Your task to perform on an android device: open chrome and create a bookmark for the current page Image 0: 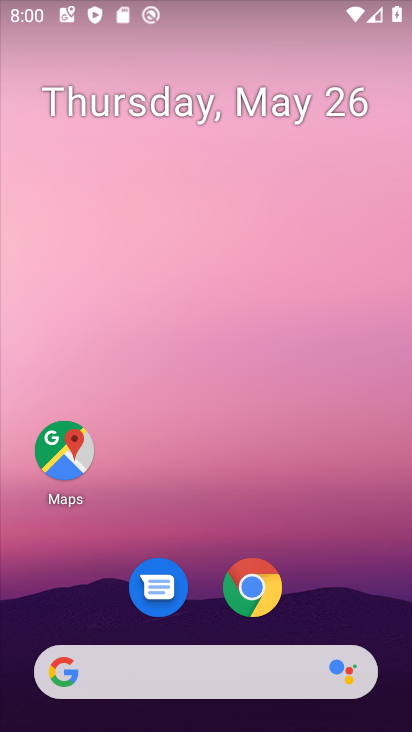
Step 0: click (242, 594)
Your task to perform on an android device: open chrome and create a bookmark for the current page Image 1: 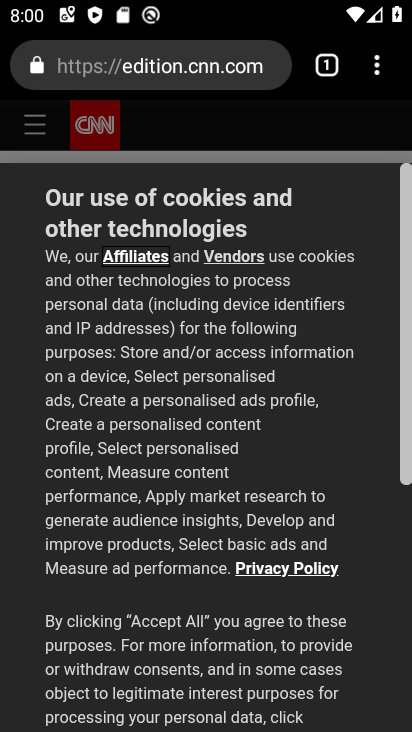
Step 1: click (368, 71)
Your task to perform on an android device: open chrome and create a bookmark for the current page Image 2: 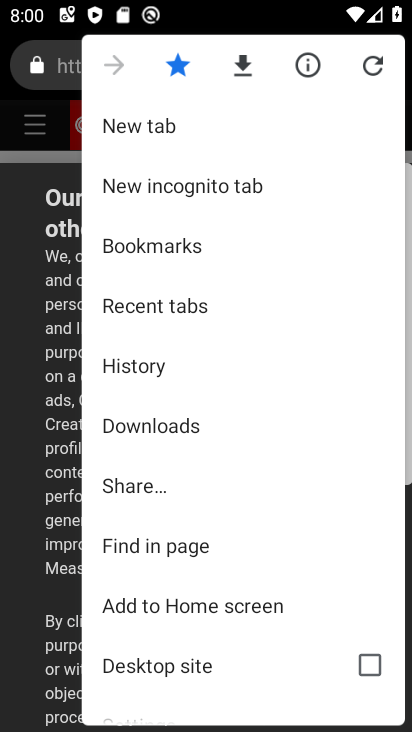
Step 2: click (167, 68)
Your task to perform on an android device: open chrome and create a bookmark for the current page Image 3: 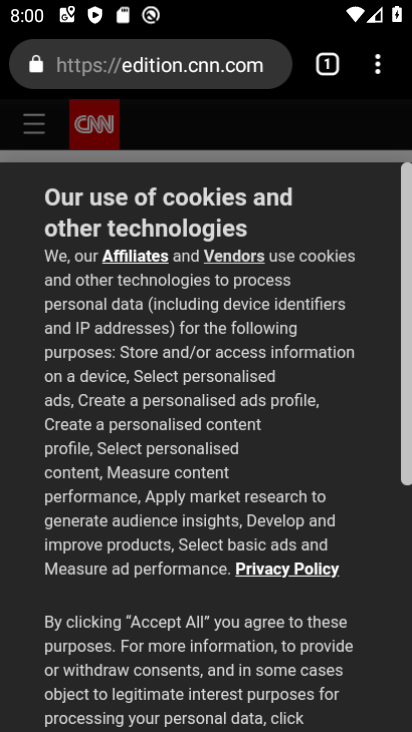
Step 3: click (167, 68)
Your task to perform on an android device: open chrome and create a bookmark for the current page Image 4: 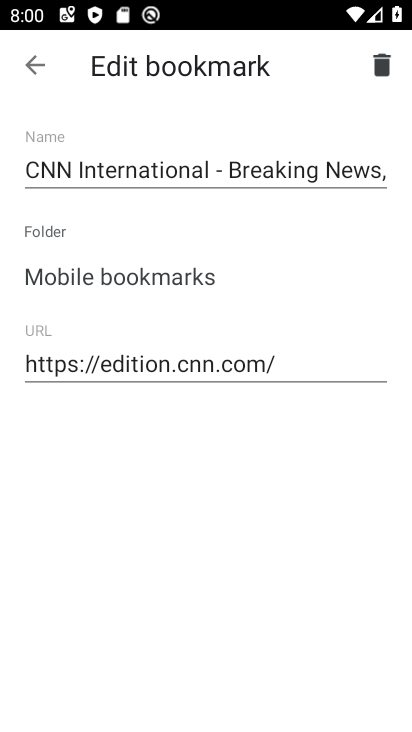
Step 4: click (44, 65)
Your task to perform on an android device: open chrome and create a bookmark for the current page Image 5: 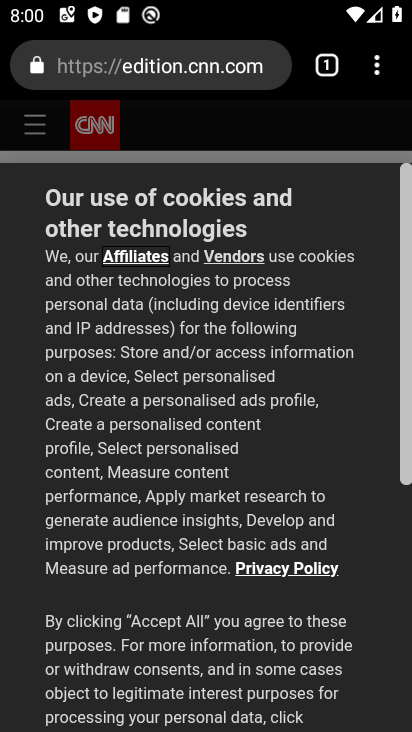
Step 5: click (379, 68)
Your task to perform on an android device: open chrome and create a bookmark for the current page Image 6: 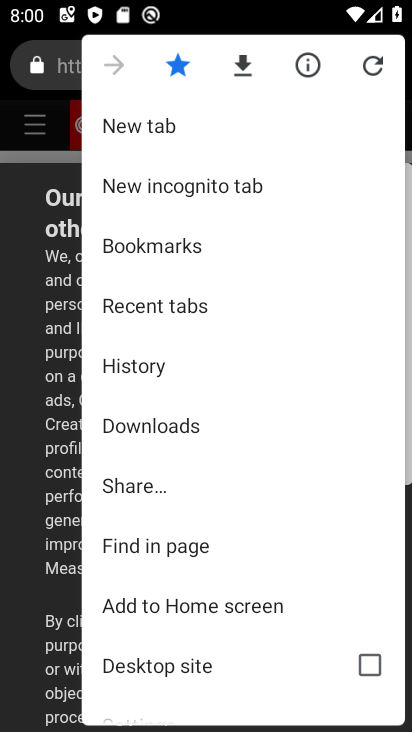
Step 6: task complete